Your task to perform on an android device: Open Yahoo.com Image 0: 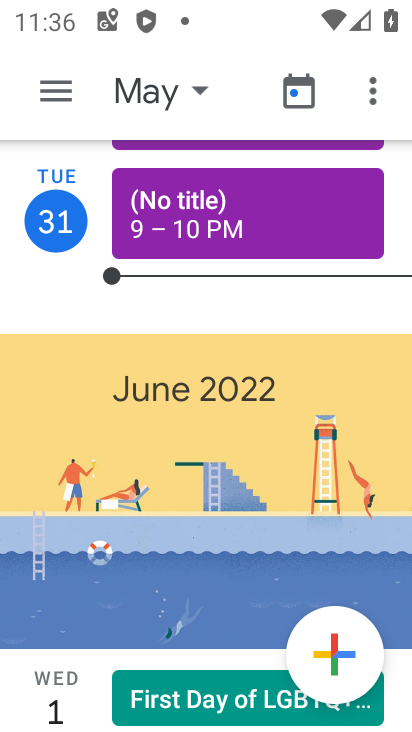
Step 0: press home button
Your task to perform on an android device: Open Yahoo.com Image 1: 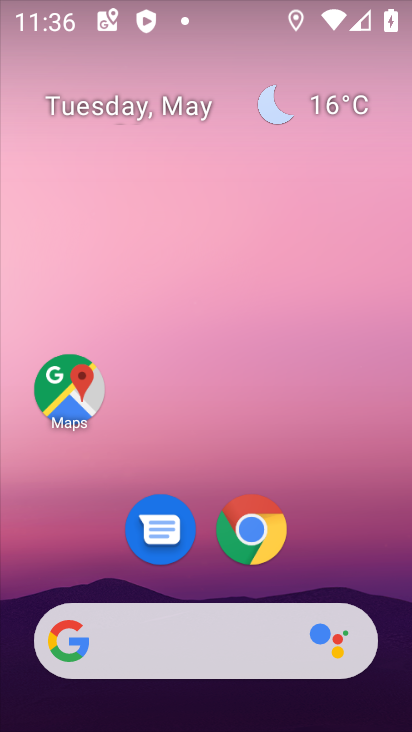
Step 1: click (247, 539)
Your task to perform on an android device: Open Yahoo.com Image 2: 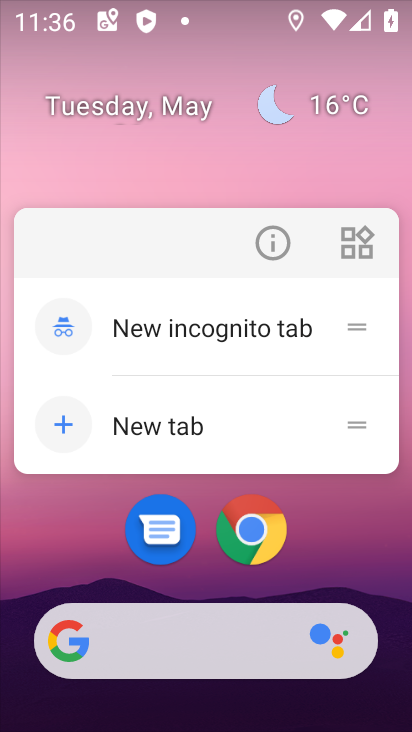
Step 2: click (249, 541)
Your task to perform on an android device: Open Yahoo.com Image 3: 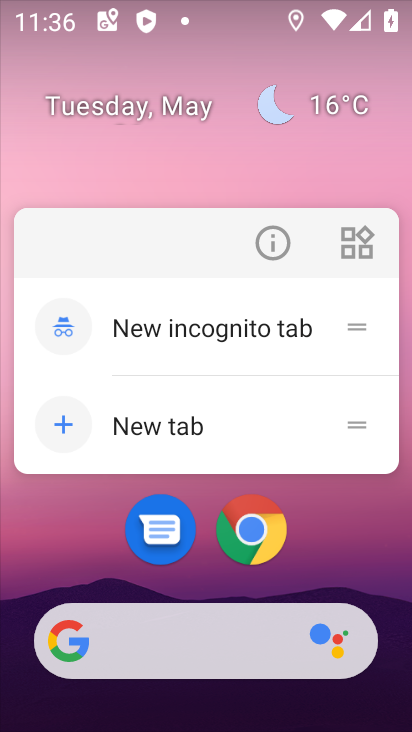
Step 3: click (255, 541)
Your task to perform on an android device: Open Yahoo.com Image 4: 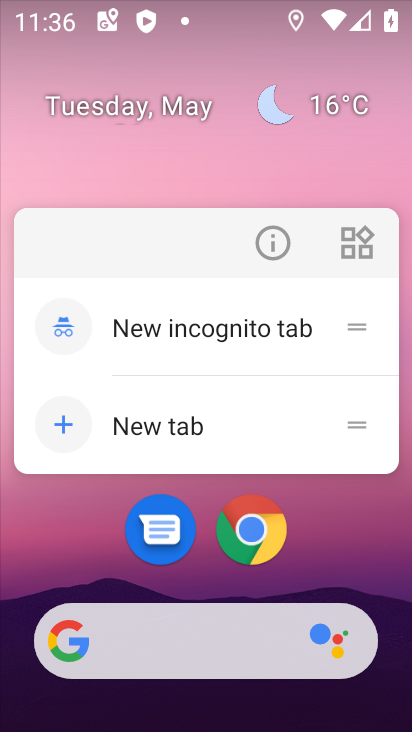
Step 4: click (256, 541)
Your task to perform on an android device: Open Yahoo.com Image 5: 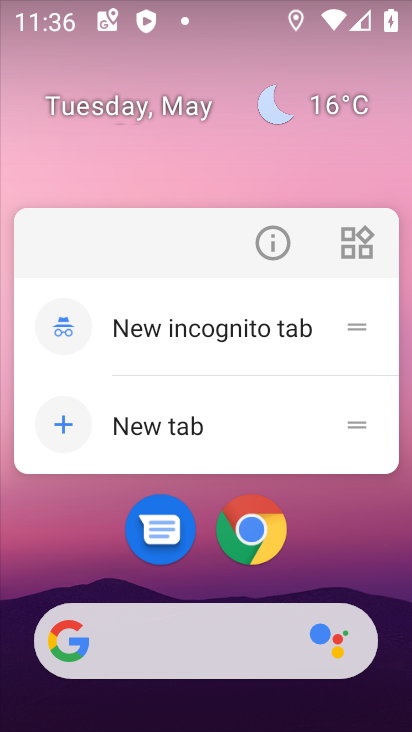
Step 5: click (257, 540)
Your task to perform on an android device: Open Yahoo.com Image 6: 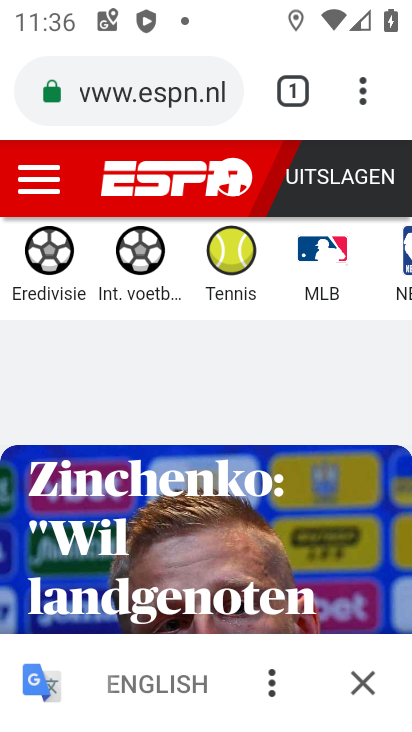
Step 6: drag from (367, 104) to (330, 172)
Your task to perform on an android device: Open Yahoo.com Image 7: 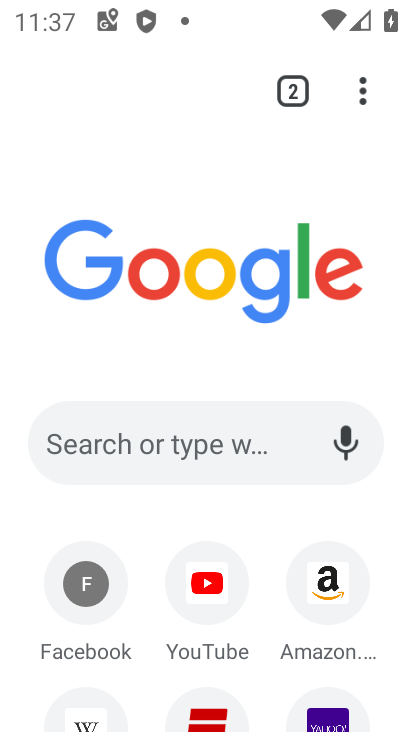
Step 7: drag from (242, 671) to (295, 346)
Your task to perform on an android device: Open Yahoo.com Image 8: 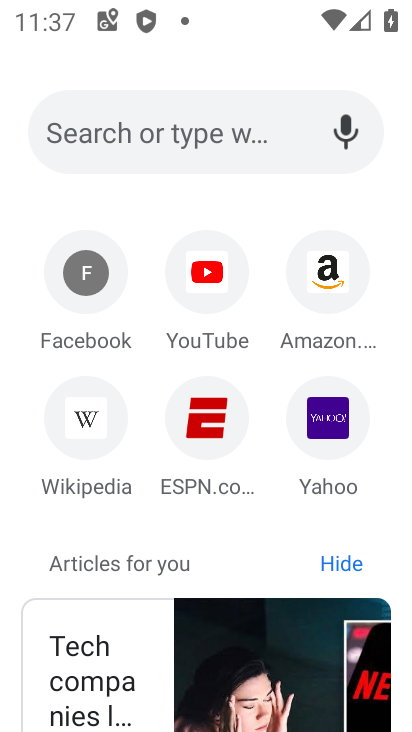
Step 8: click (325, 440)
Your task to perform on an android device: Open Yahoo.com Image 9: 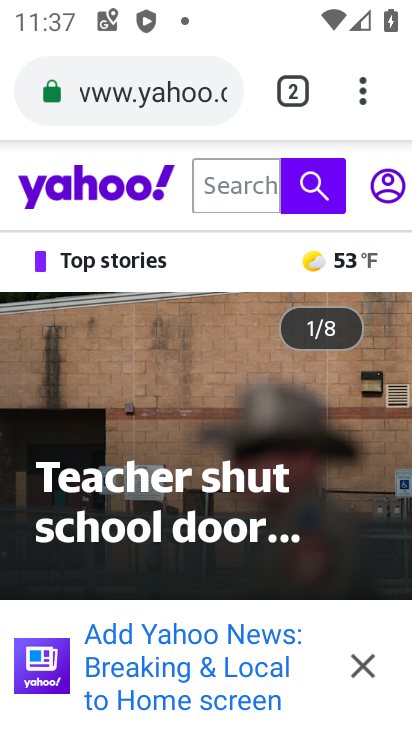
Step 9: task complete